Your task to perform on an android device: Go to wifi settings Image 0: 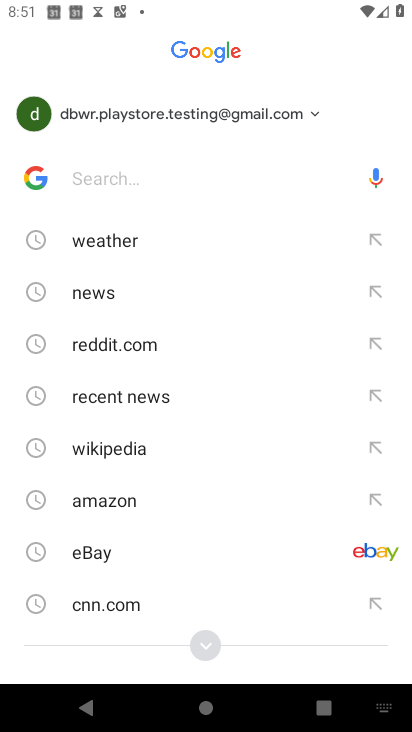
Step 0: press home button
Your task to perform on an android device: Go to wifi settings Image 1: 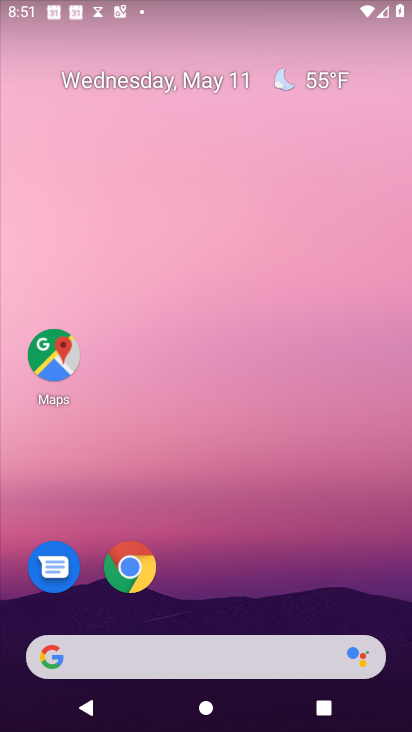
Step 1: drag from (189, 601) to (320, 36)
Your task to perform on an android device: Go to wifi settings Image 2: 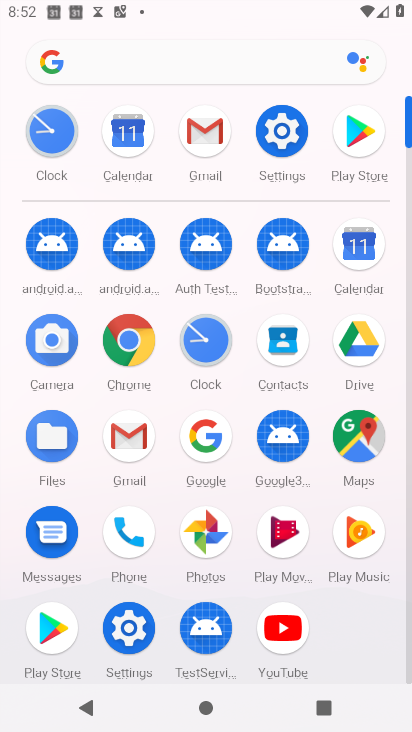
Step 2: click (275, 149)
Your task to perform on an android device: Go to wifi settings Image 3: 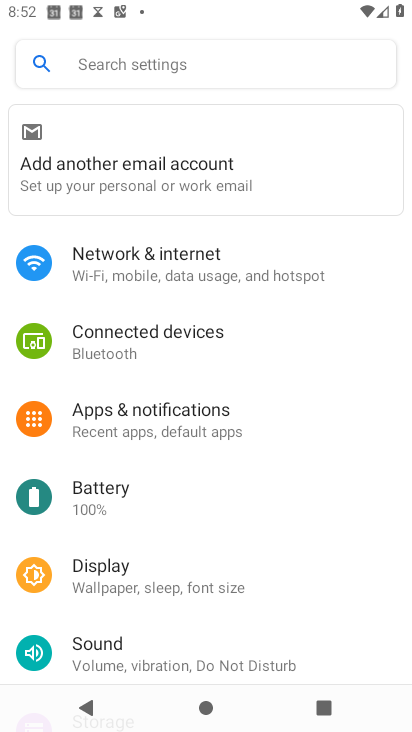
Step 3: click (184, 283)
Your task to perform on an android device: Go to wifi settings Image 4: 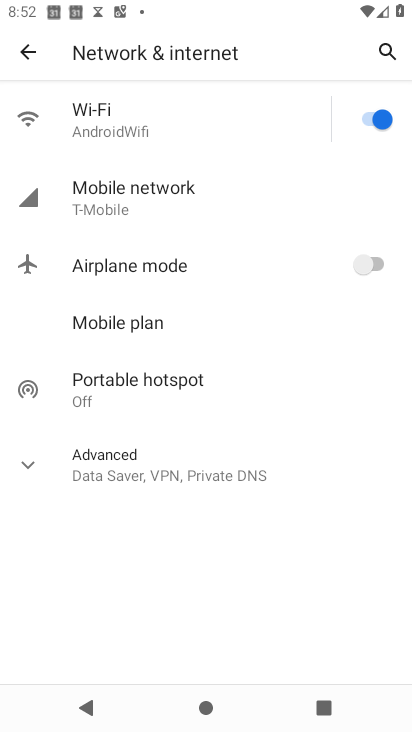
Step 4: click (121, 123)
Your task to perform on an android device: Go to wifi settings Image 5: 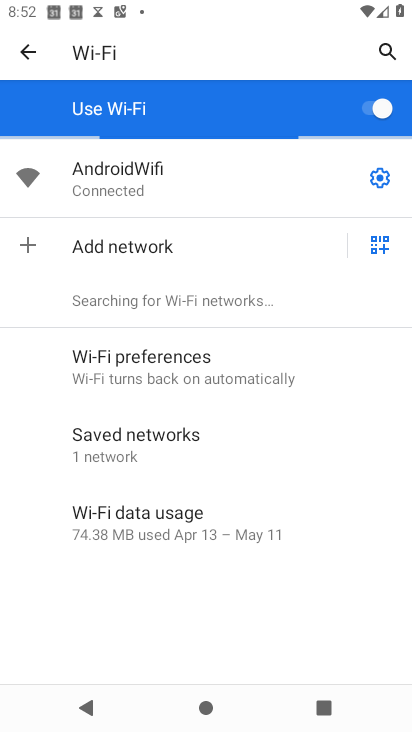
Step 5: task complete